Your task to perform on an android device: Search for seafood restaurants on Google Maps Image 0: 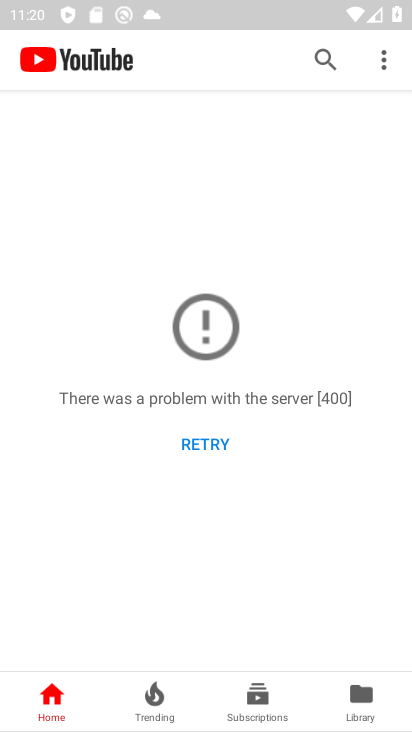
Step 0: press home button
Your task to perform on an android device: Search for seafood restaurants on Google Maps Image 1: 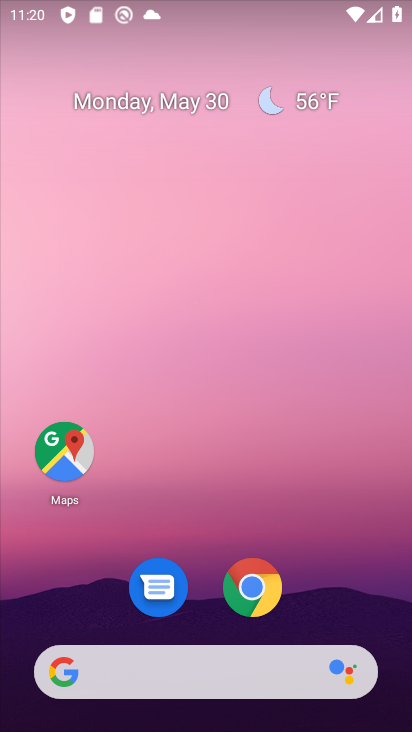
Step 1: click (64, 453)
Your task to perform on an android device: Search for seafood restaurants on Google Maps Image 2: 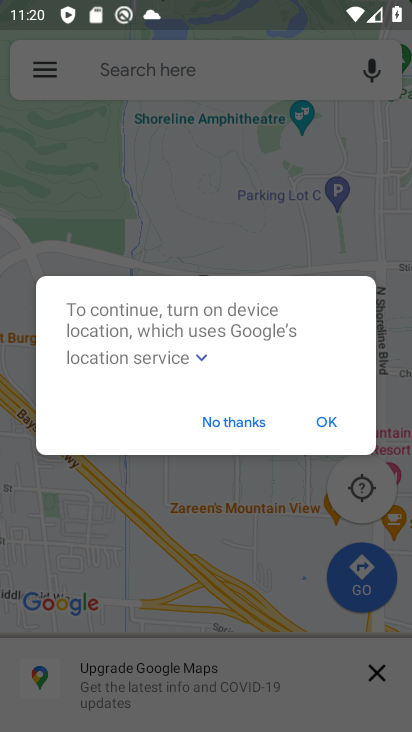
Step 2: click (140, 71)
Your task to perform on an android device: Search for seafood restaurants on Google Maps Image 3: 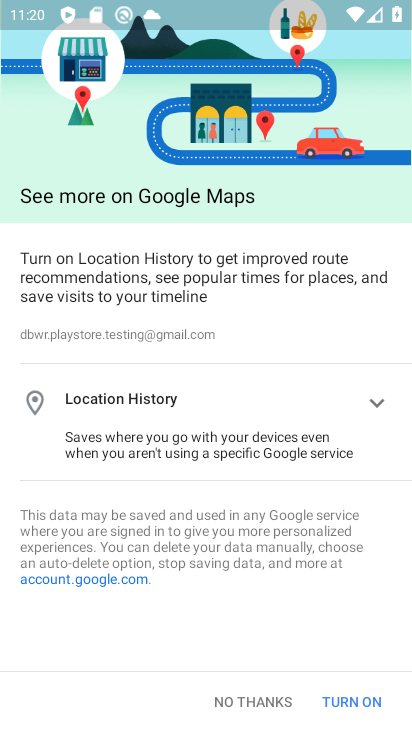
Step 3: click (234, 691)
Your task to perform on an android device: Search for seafood restaurants on Google Maps Image 4: 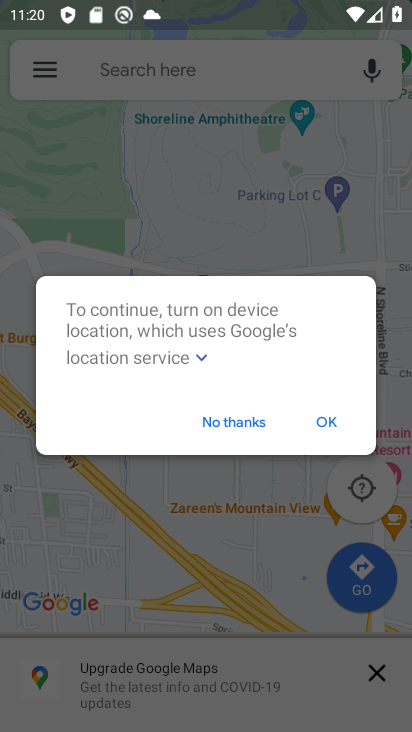
Step 4: click (223, 420)
Your task to perform on an android device: Search for seafood restaurants on Google Maps Image 5: 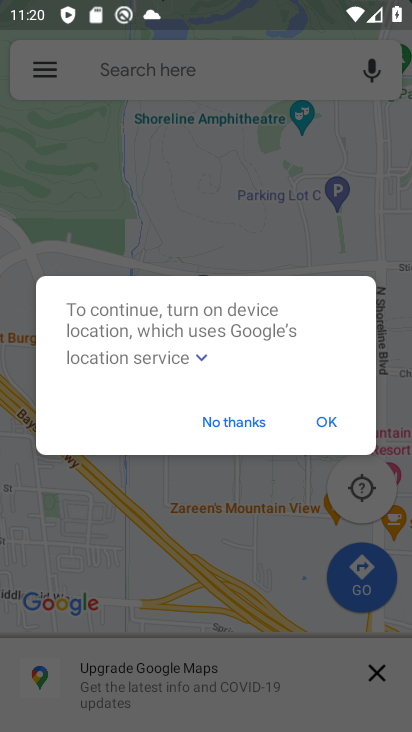
Step 5: click (329, 416)
Your task to perform on an android device: Search for seafood restaurants on Google Maps Image 6: 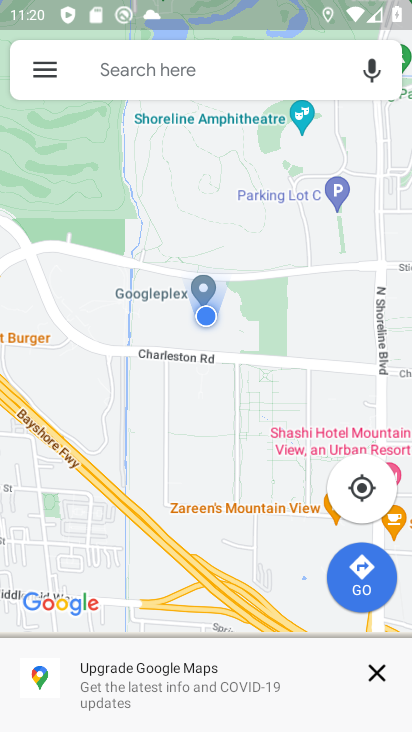
Step 6: click (123, 71)
Your task to perform on an android device: Search for seafood restaurants on Google Maps Image 7: 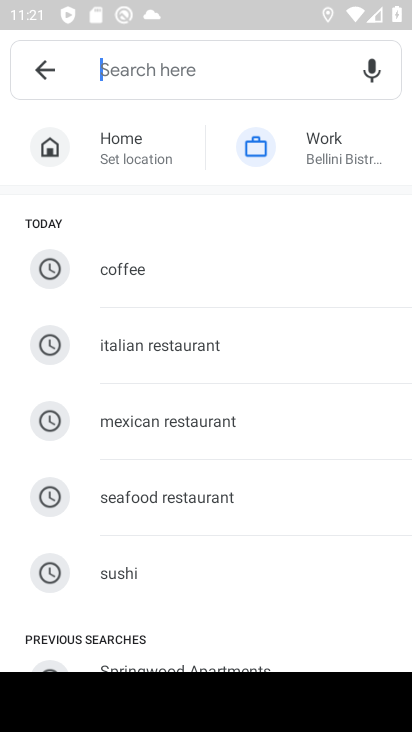
Step 7: type "seafood restaurants"
Your task to perform on an android device: Search for seafood restaurants on Google Maps Image 8: 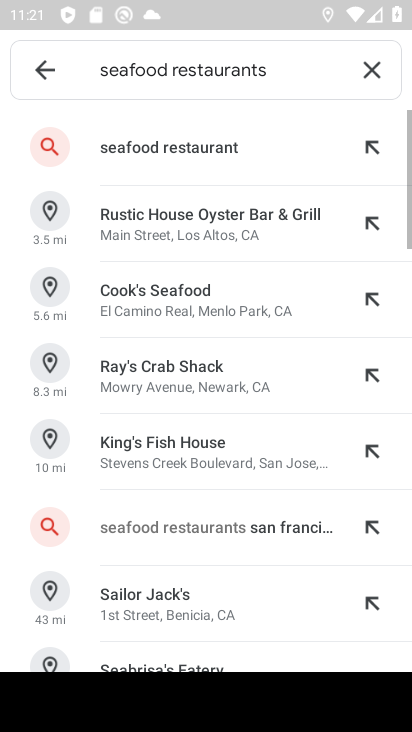
Step 8: click (184, 136)
Your task to perform on an android device: Search for seafood restaurants on Google Maps Image 9: 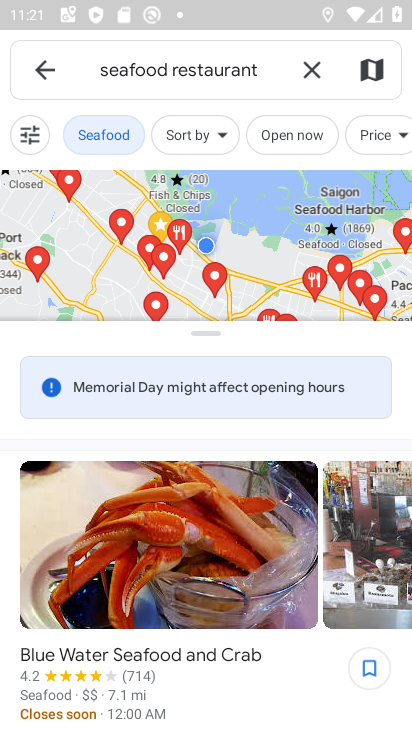
Step 9: task complete